Your task to perform on an android device: delete location history Image 0: 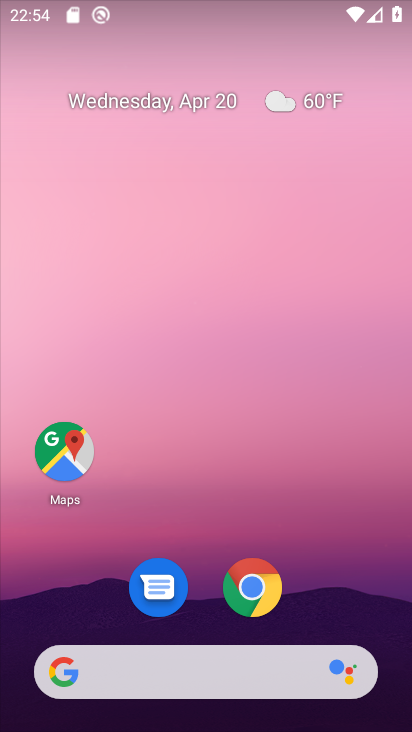
Step 0: drag from (204, 232) to (223, 146)
Your task to perform on an android device: delete location history Image 1: 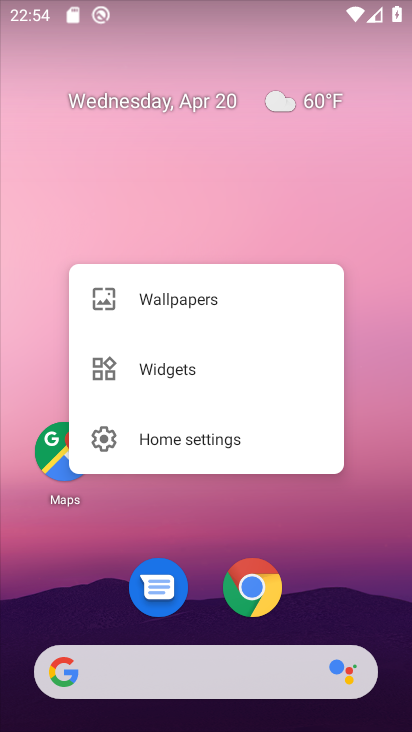
Step 1: click (230, 193)
Your task to perform on an android device: delete location history Image 2: 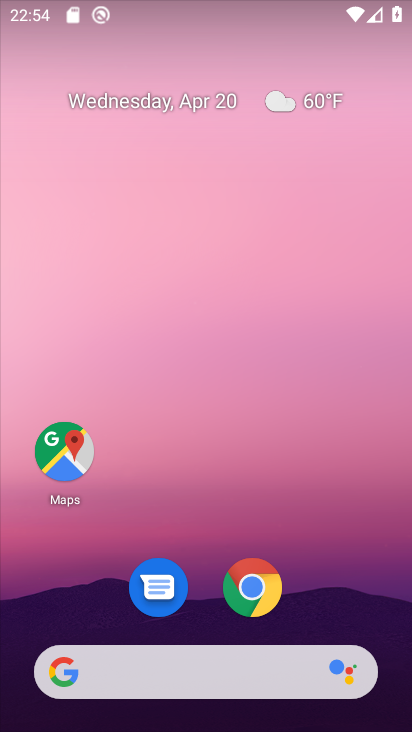
Step 2: click (63, 451)
Your task to perform on an android device: delete location history Image 3: 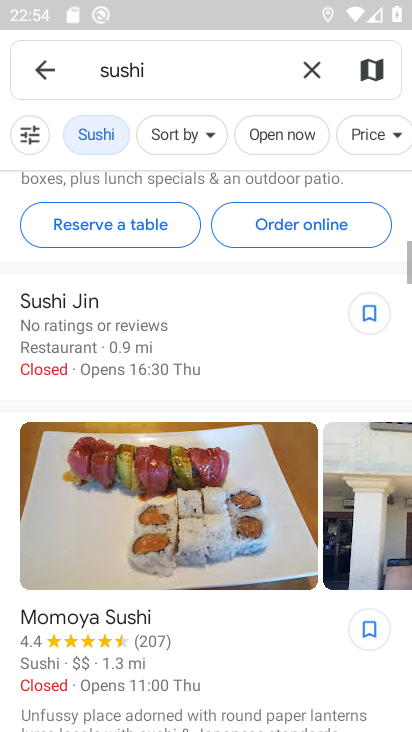
Step 3: click (45, 70)
Your task to perform on an android device: delete location history Image 4: 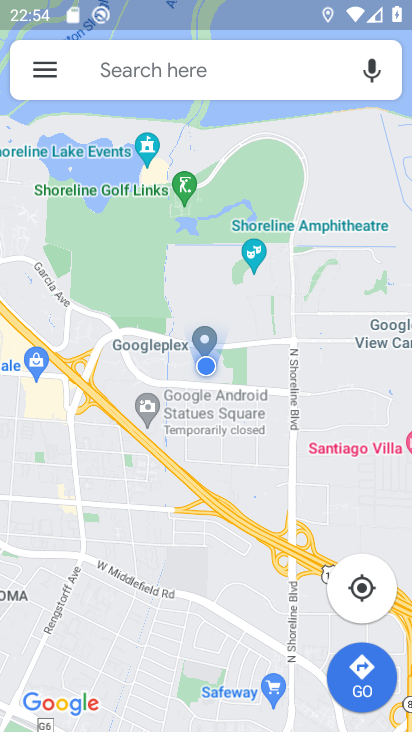
Step 4: click (41, 62)
Your task to perform on an android device: delete location history Image 5: 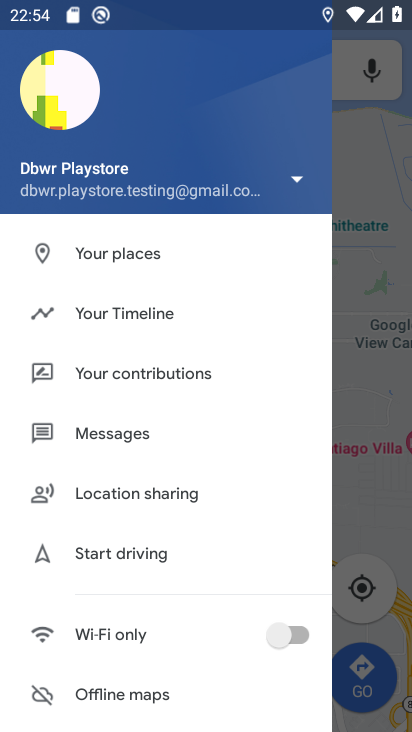
Step 5: click (177, 312)
Your task to perform on an android device: delete location history Image 6: 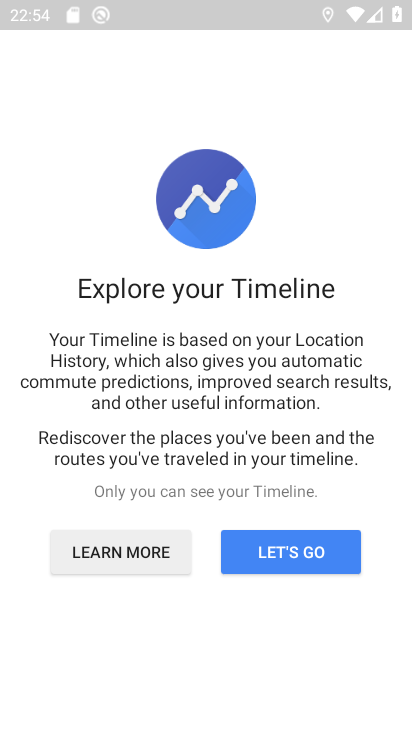
Step 6: click (293, 556)
Your task to perform on an android device: delete location history Image 7: 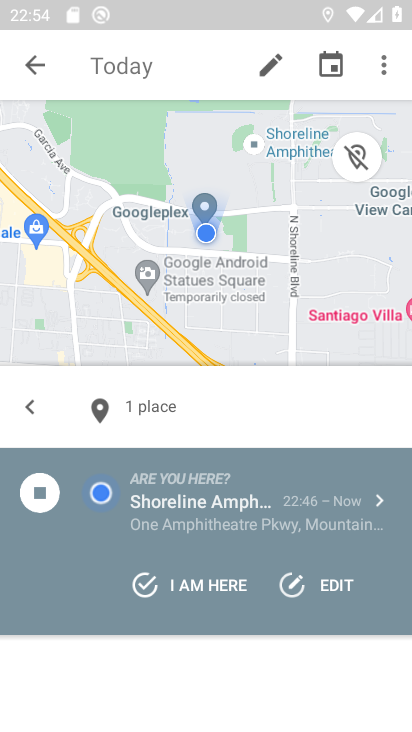
Step 7: click (380, 62)
Your task to perform on an android device: delete location history Image 8: 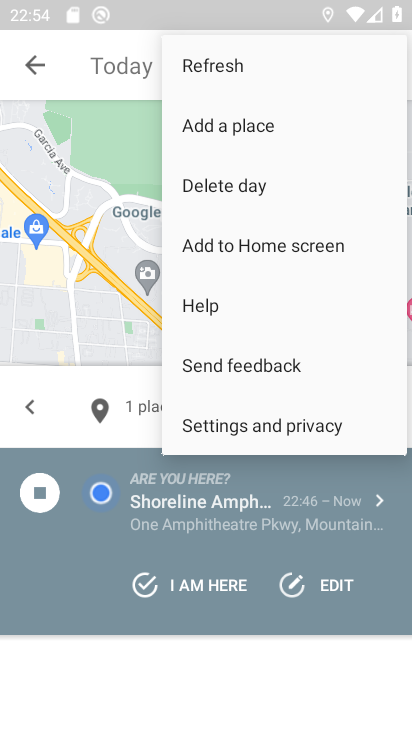
Step 8: click (351, 422)
Your task to perform on an android device: delete location history Image 9: 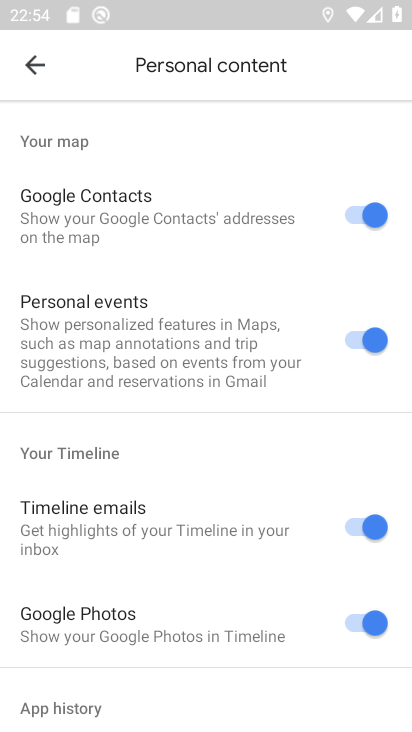
Step 9: drag from (196, 683) to (224, 94)
Your task to perform on an android device: delete location history Image 10: 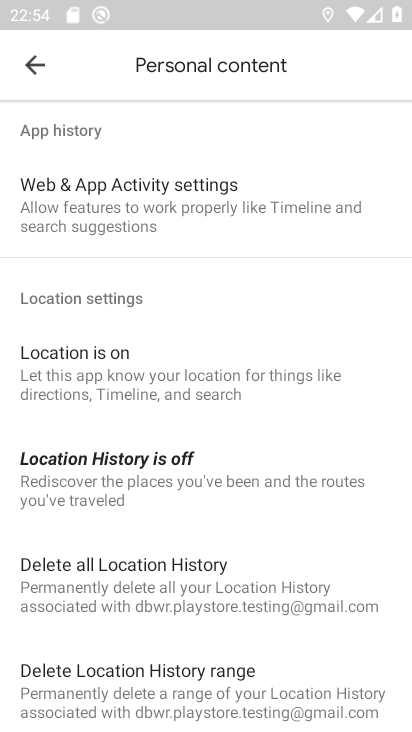
Step 10: click (244, 576)
Your task to perform on an android device: delete location history Image 11: 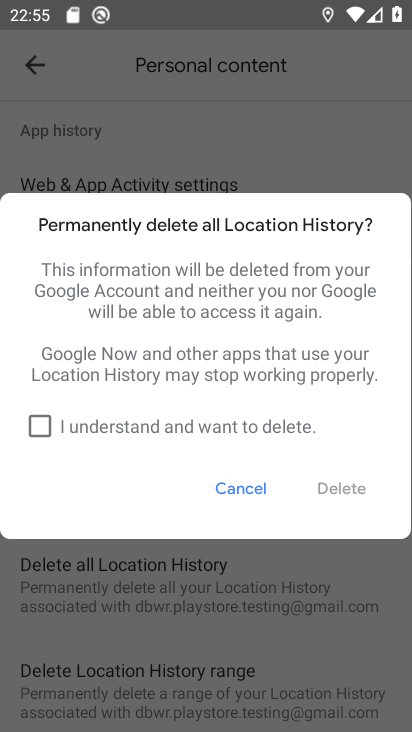
Step 11: click (37, 418)
Your task to perform on an android device: delete location history Image 12: 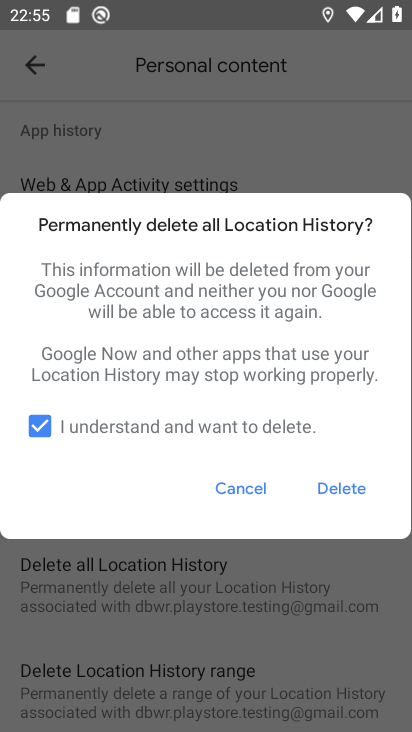
Step 12: click (343, 482)
Your task to perform on an android device: delete location history Image 13: 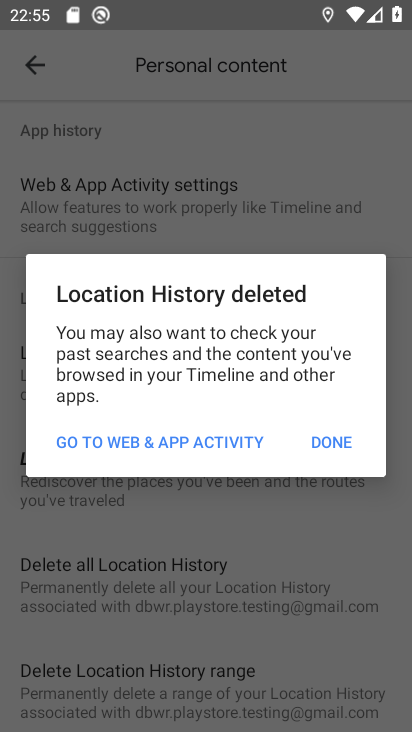
Step 13: click (327, 435)
Your task to perform on an android device: delete location history Image 14: 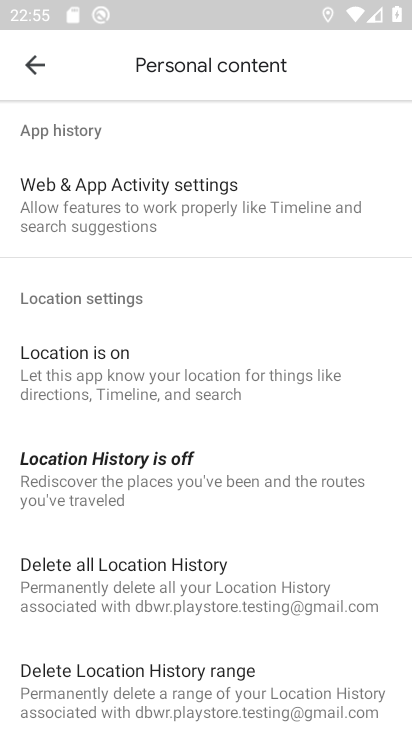
Step 14: task complete